Your task to perform on an android device: turn on notifications settings in the gmail app Image 0: 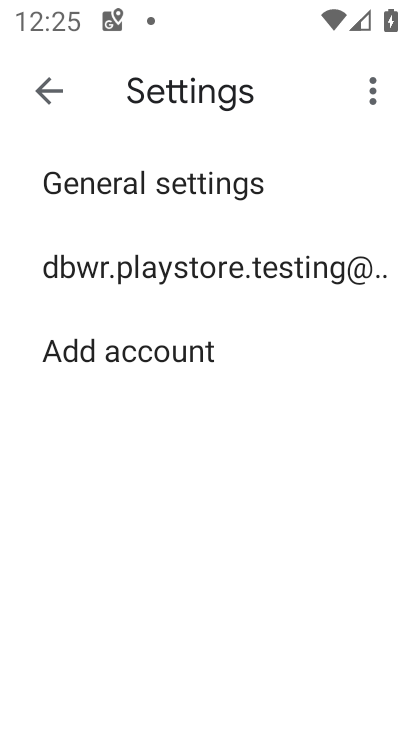
Step 0: click (312, 264)
Your task to perform on an android device: turn on notifications settings in the gmail app Image 1: 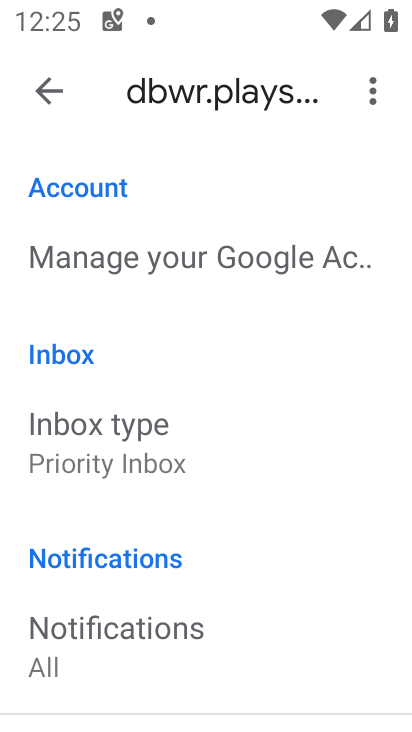
Step 1: drag from (175, 512) to (266, 367)
Your task to perform on an android device: turn on notifications settings in the gmail app Image 2: 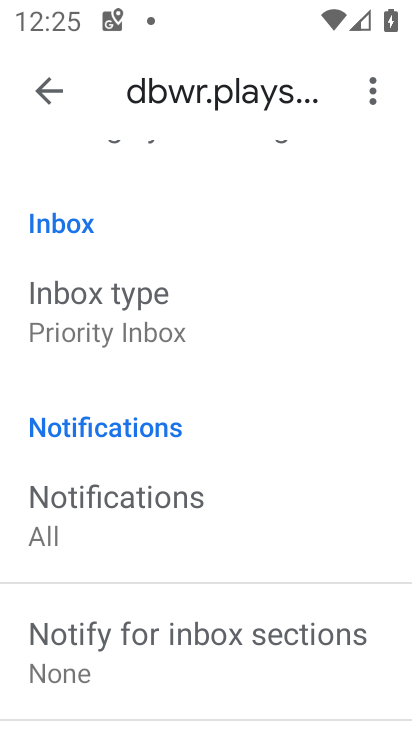
Step 2: drag from (177, 568) to (279, 416)
Your task to perform on an android device: turn on notifications settings in the gmail app Image 3: 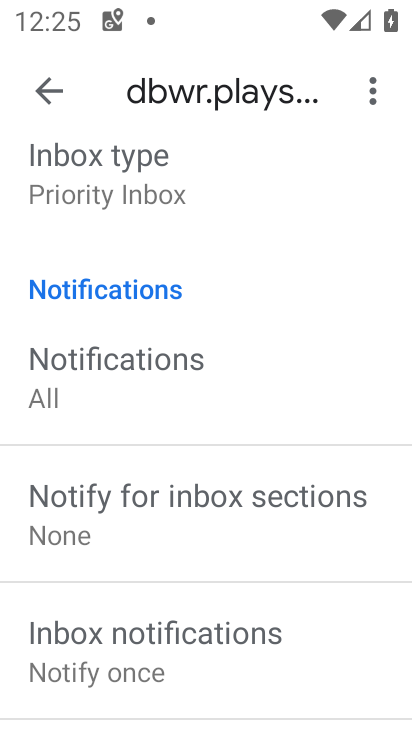
Step 3: drag from (167, 595) to (277, 431)
Your task to perform on an android device: turn on notifications settings in the gmail app Image 4: 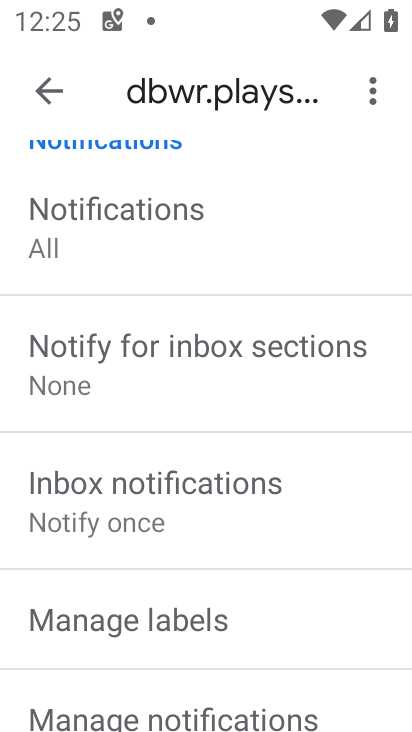
Step 4: drag from (186, 591) to (302, 459)
Your task to perform on an android device: turn on notifications settings in the gmail app Image 5: 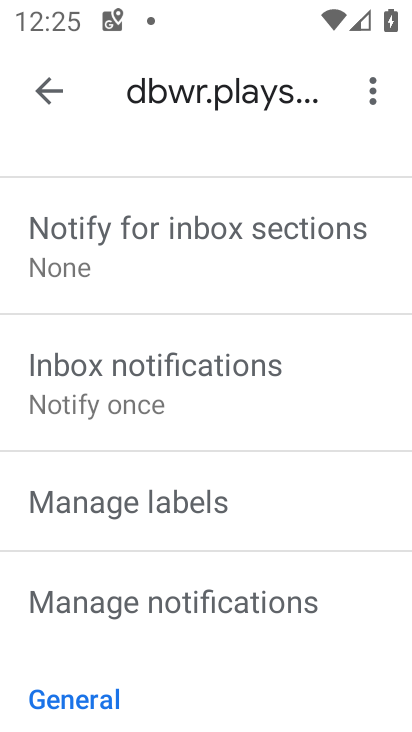
Step 5: click (218, 607)
Your task to perform on an android device: turn on notifications settings in the gmail app Image 6: 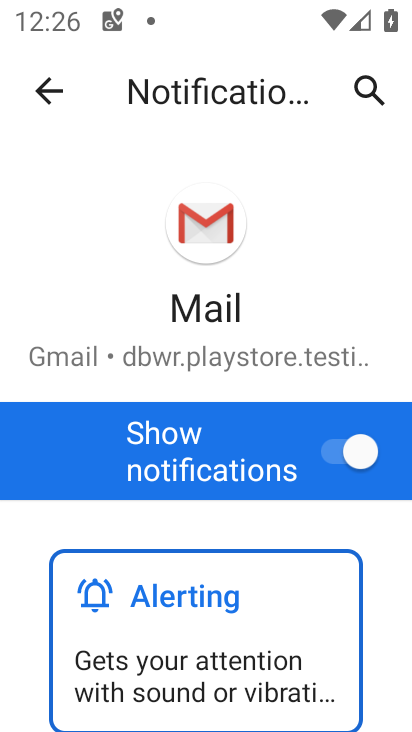
Step 6: task complete